Your task to perform on an android device: Add "logitech g pro" to the cart on costco Image 0: 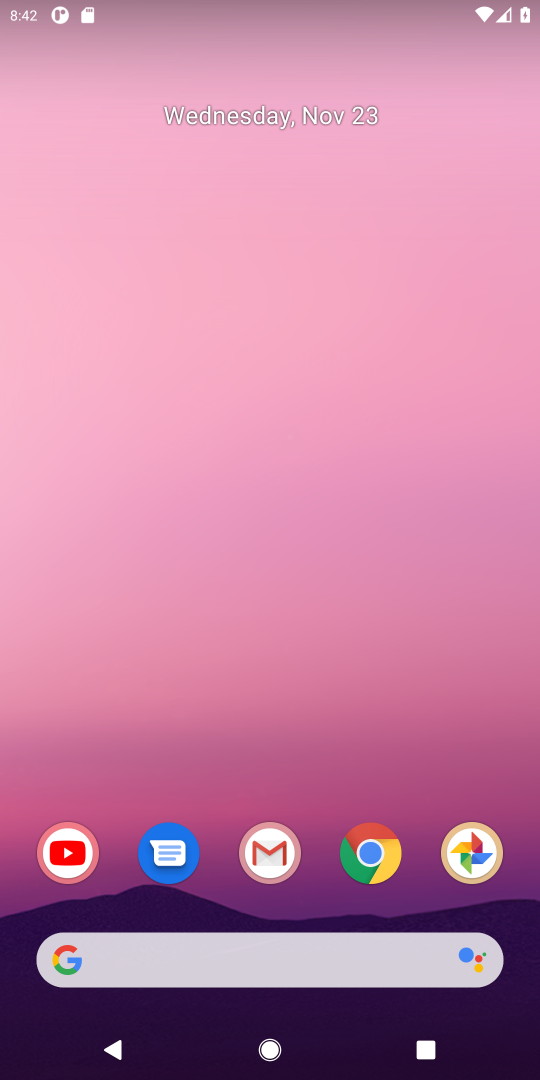
Step 0: click (384, 856)
Your task to perform on an android device: Add "logitech g pro" to the cart on costco Image 1: 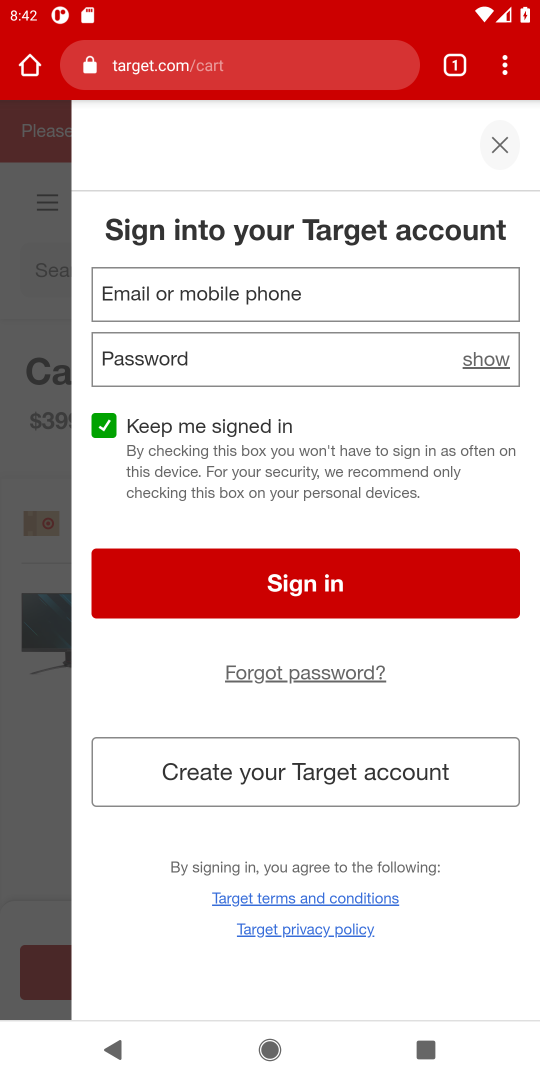
Step 1: click (192, 71)
Your task to perform on an android device: Add "logitech g pro" to the cart on costco Image 2: 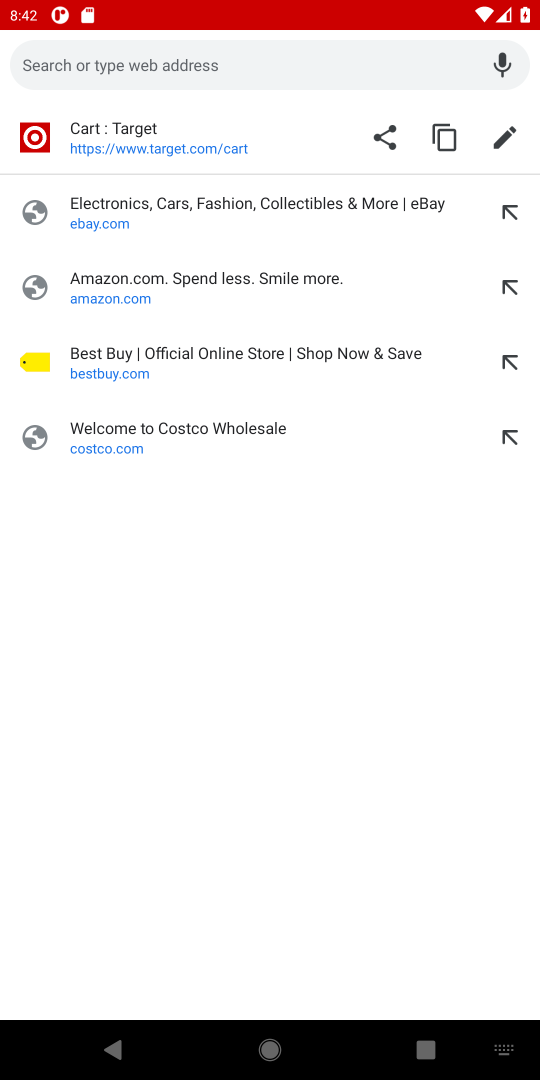
Step 2: click (95, 449)
Your task to perform on an android device: Add "logitech g pro" to the cart on costco Image 3: 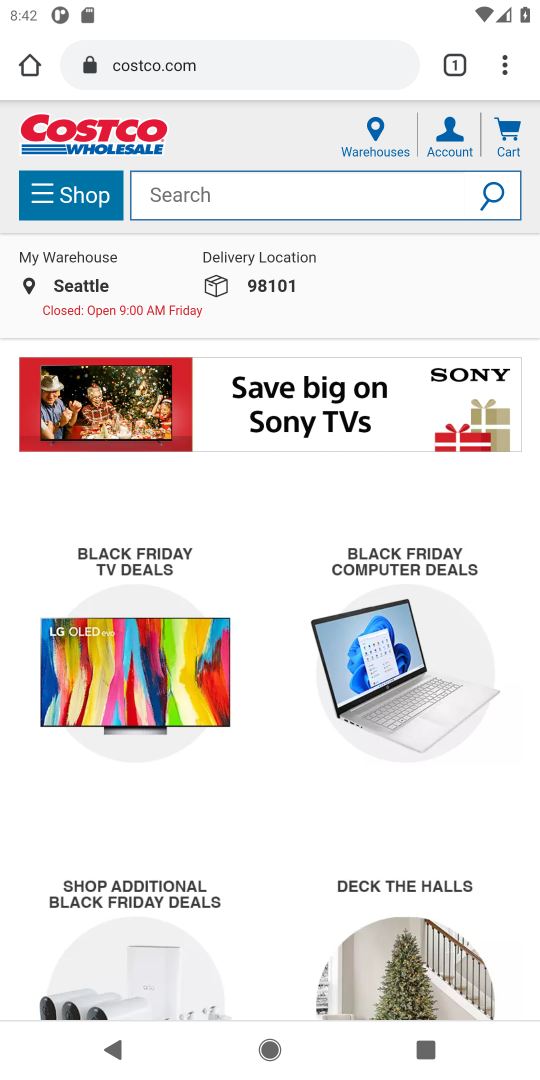
Step 3: click (239, 192)
Your task to perform on an android device: Add "logitech g pro" to the cart on costco Image 4: 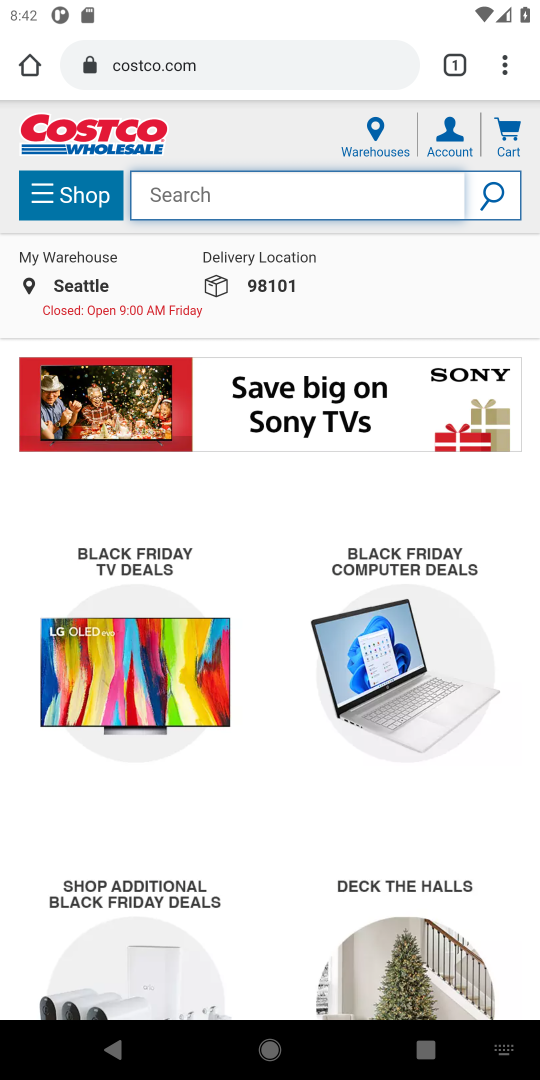
Step 4: type "logitech g pro"
Your task to perform on an android device: Add "logitech g pro" to the cart on costco Image 5: 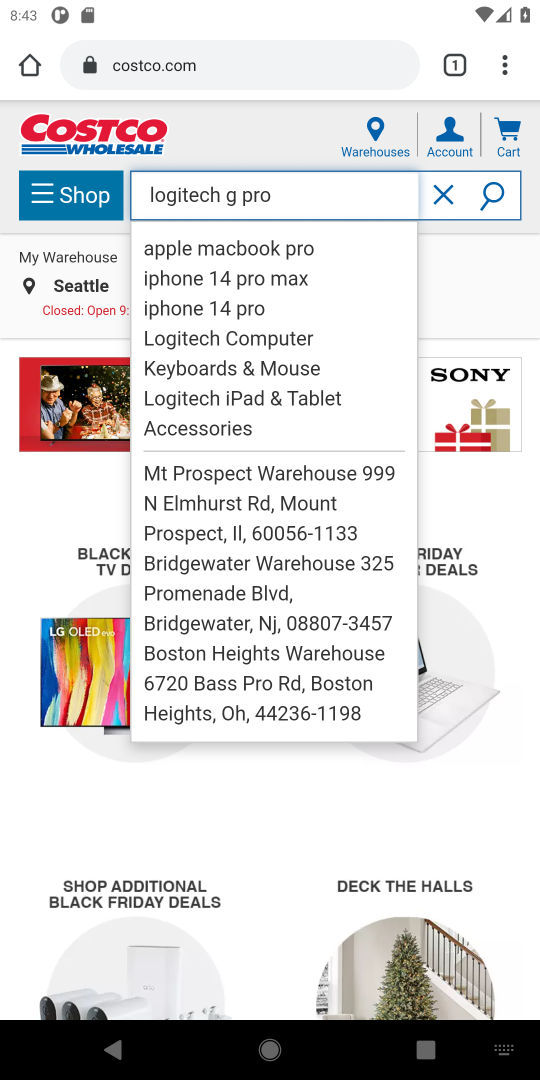
Step 5: click (493, 200)
Your task to perform on an android device: Add "logitech g pro" to the cart on costco Image 6: 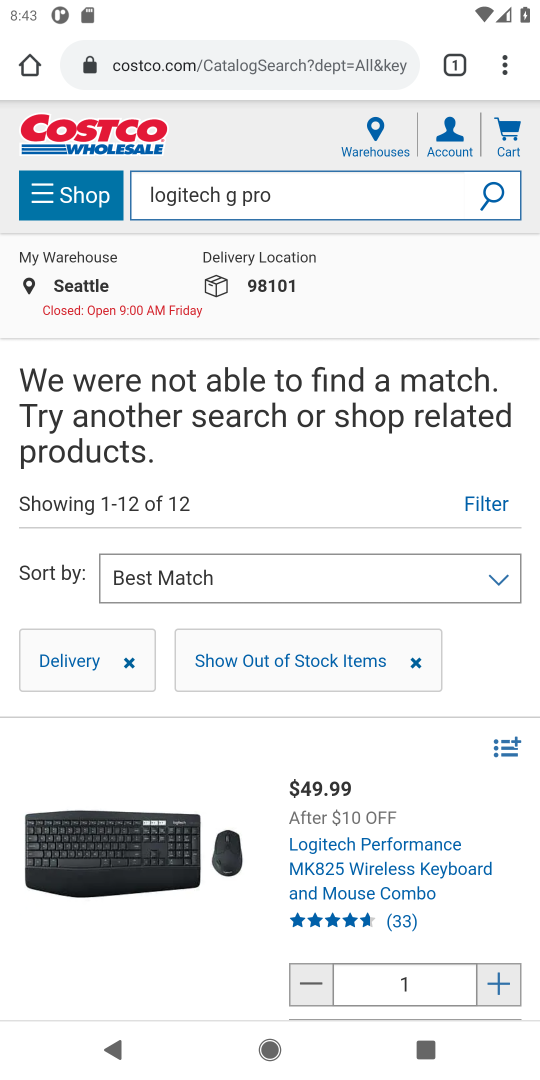
Step 6: task complete